Your task to perform on an android device: see tabs open on other devices in the chrome app Image 0: 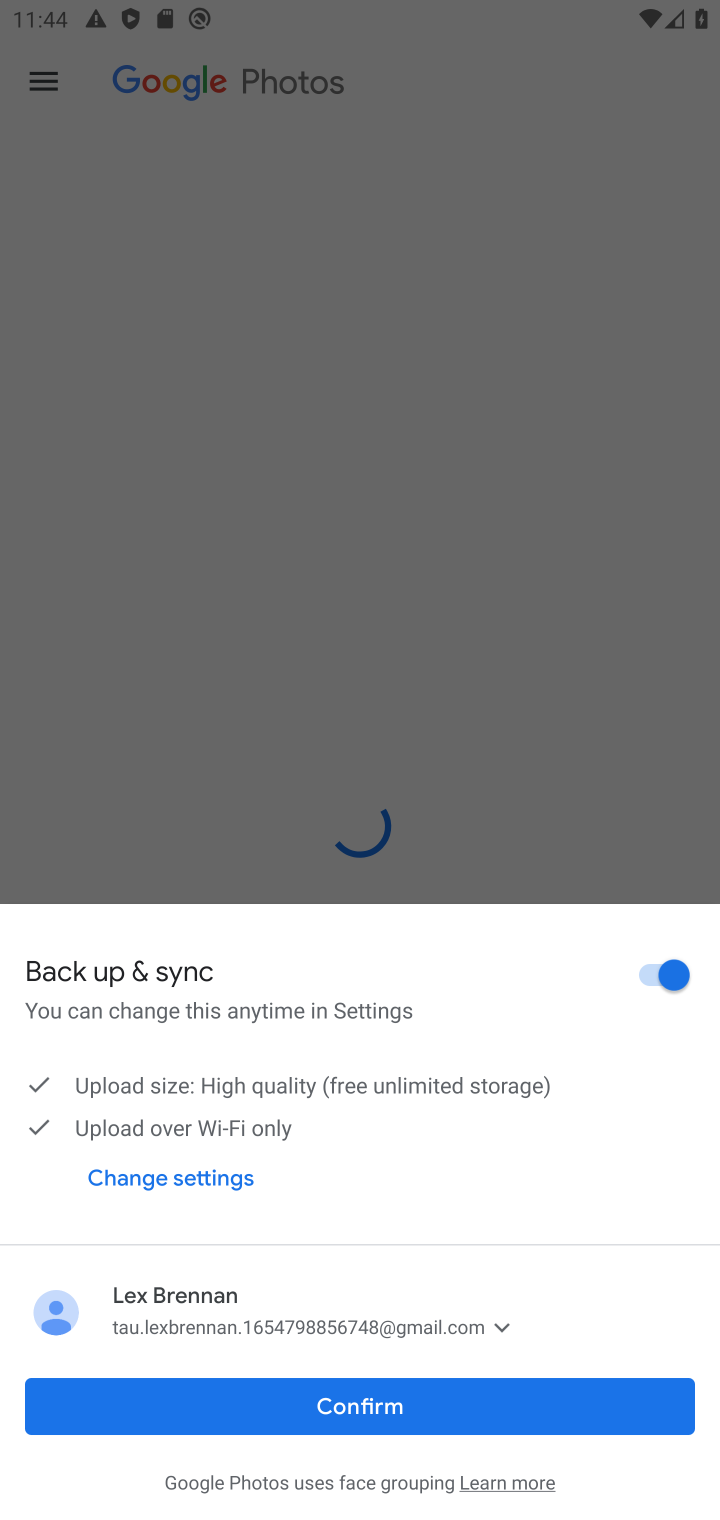
Step 0: press home button
Your task to perform on an android device: see tabs open on other devices in the chrome app Image 1: 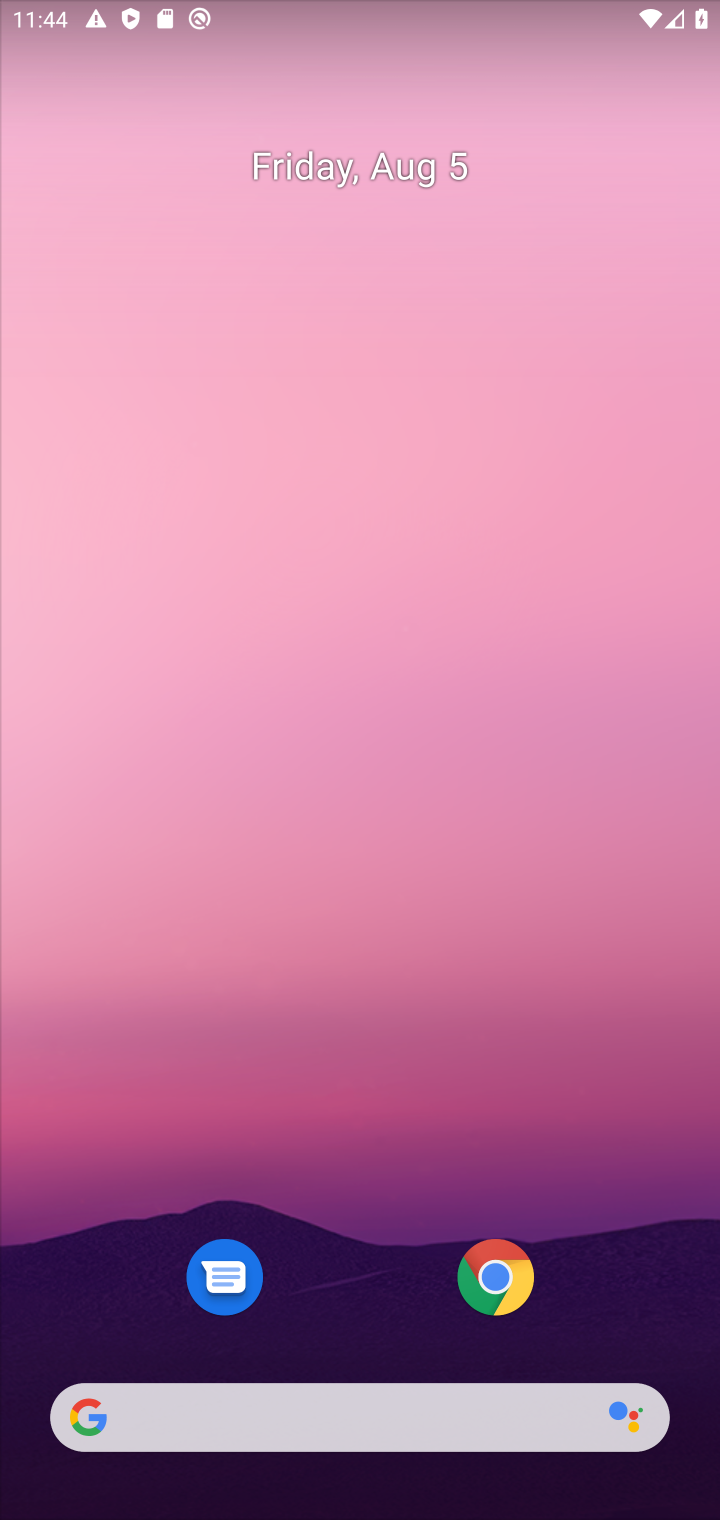
Step 1: click (489, 1267)
Your task to perform on an android device: see tabs open on other devices in the chrome app Image 2: 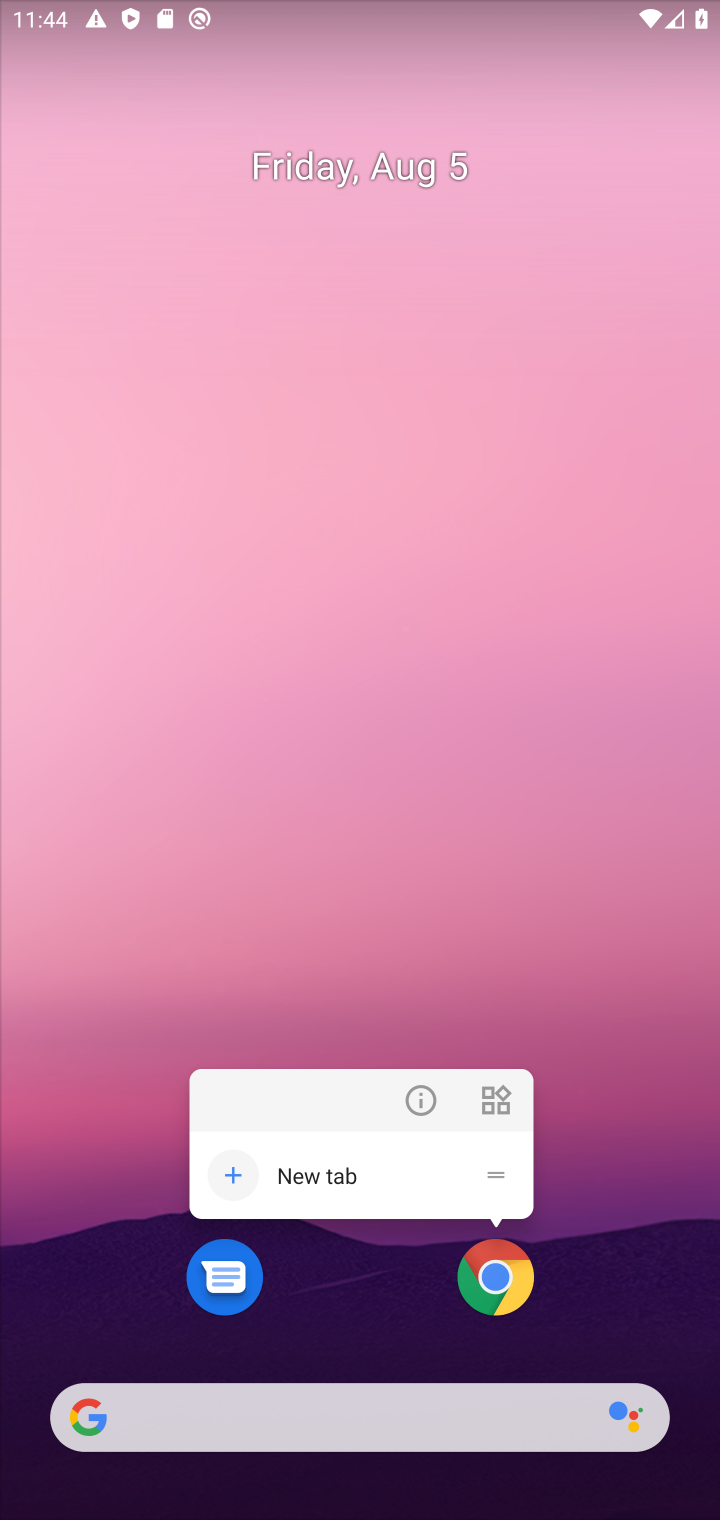
Step 2: click (489, 1279)
Your task to perform on an android device: see tabs open on other devices in the chrome app Image 3: 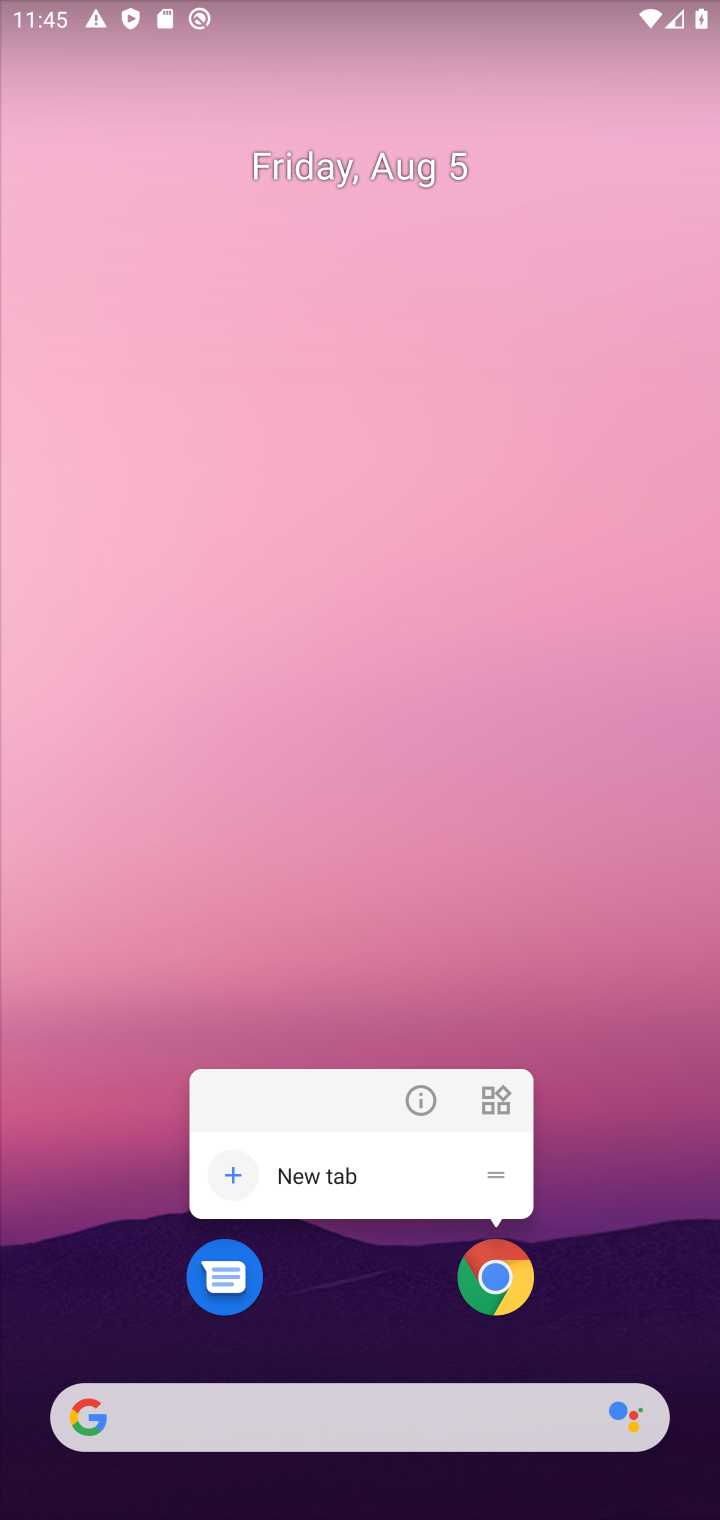
Step 3: click (489, 1279)
Your task to perform on an android device: see tabs open on other devices in the chrome app Image 4: 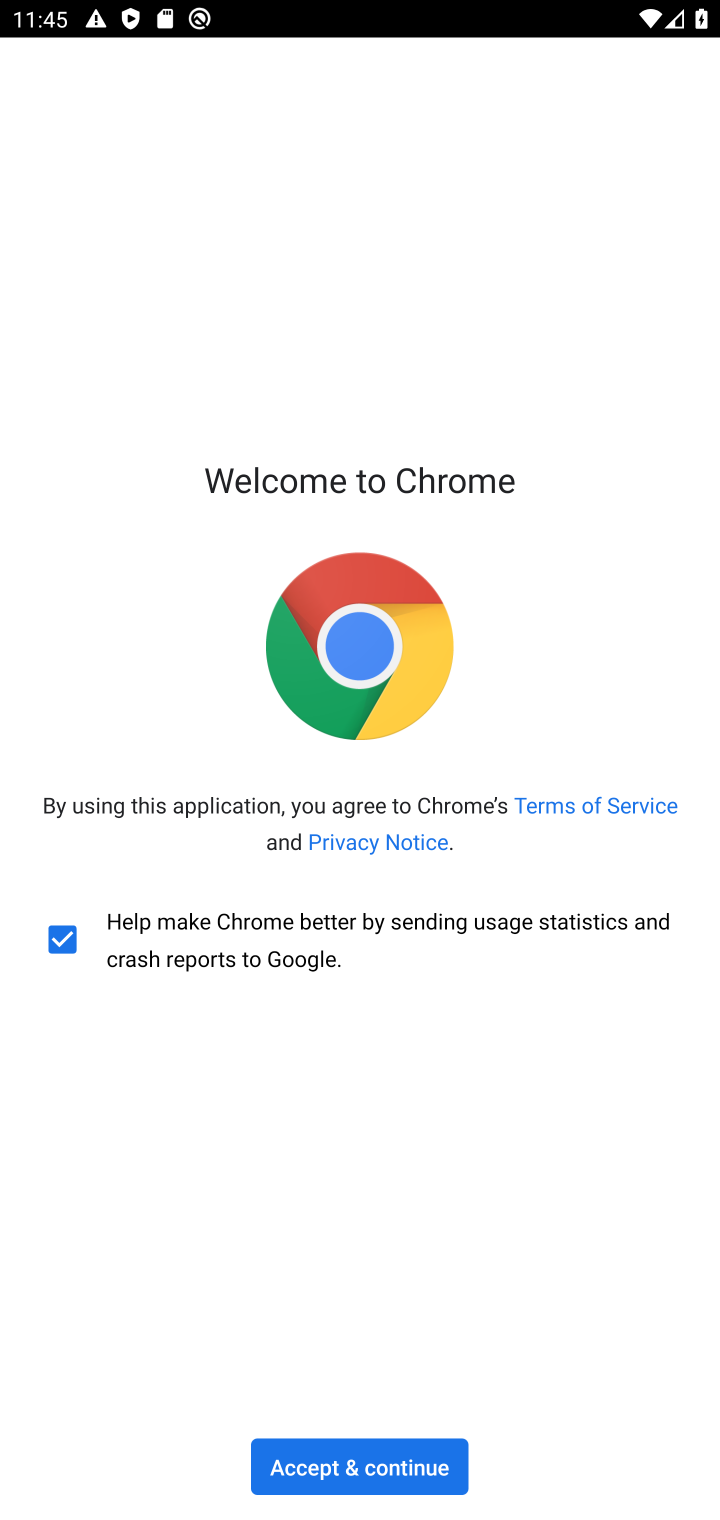
Step 4: click (303, 1474)
Your task to perform on an android device: see tabs open on other devices in the chrome app Image 5: 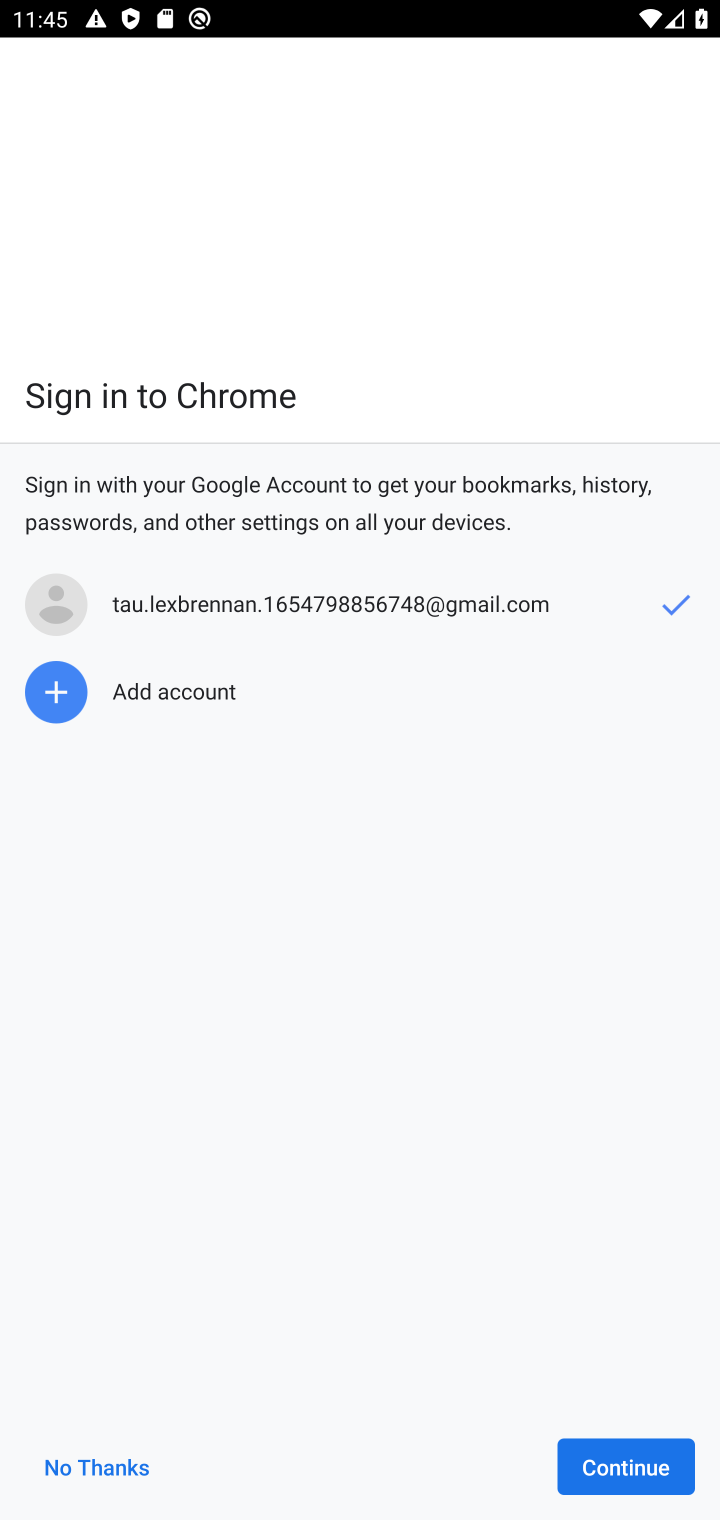
Step 5: click (601, 1470)
Your task to perform on an android device: see tabs open on other devices in the chrome app Image 6: 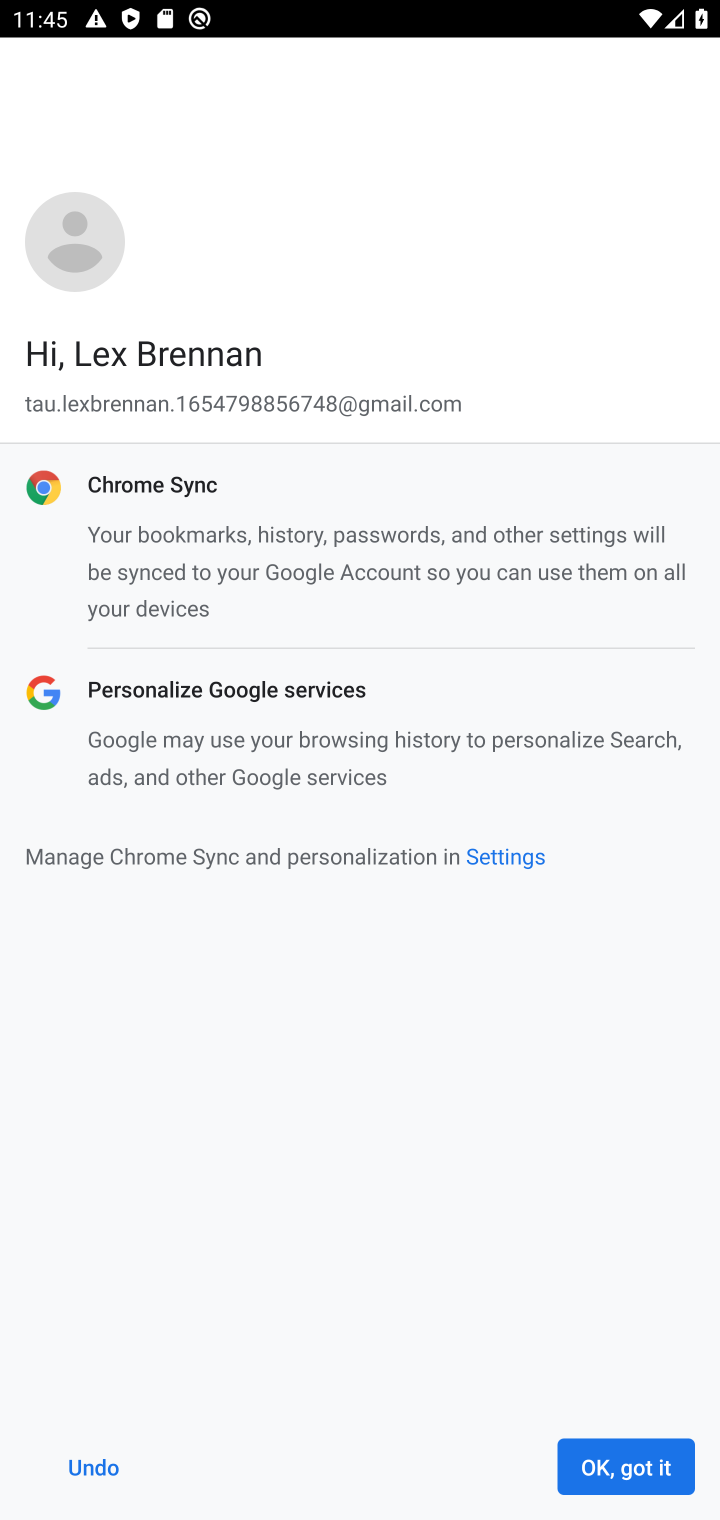
Step 6: click (618, 1468)
Your task to perform on an android device: see tabs open on other devices in the chrome app Image 7: 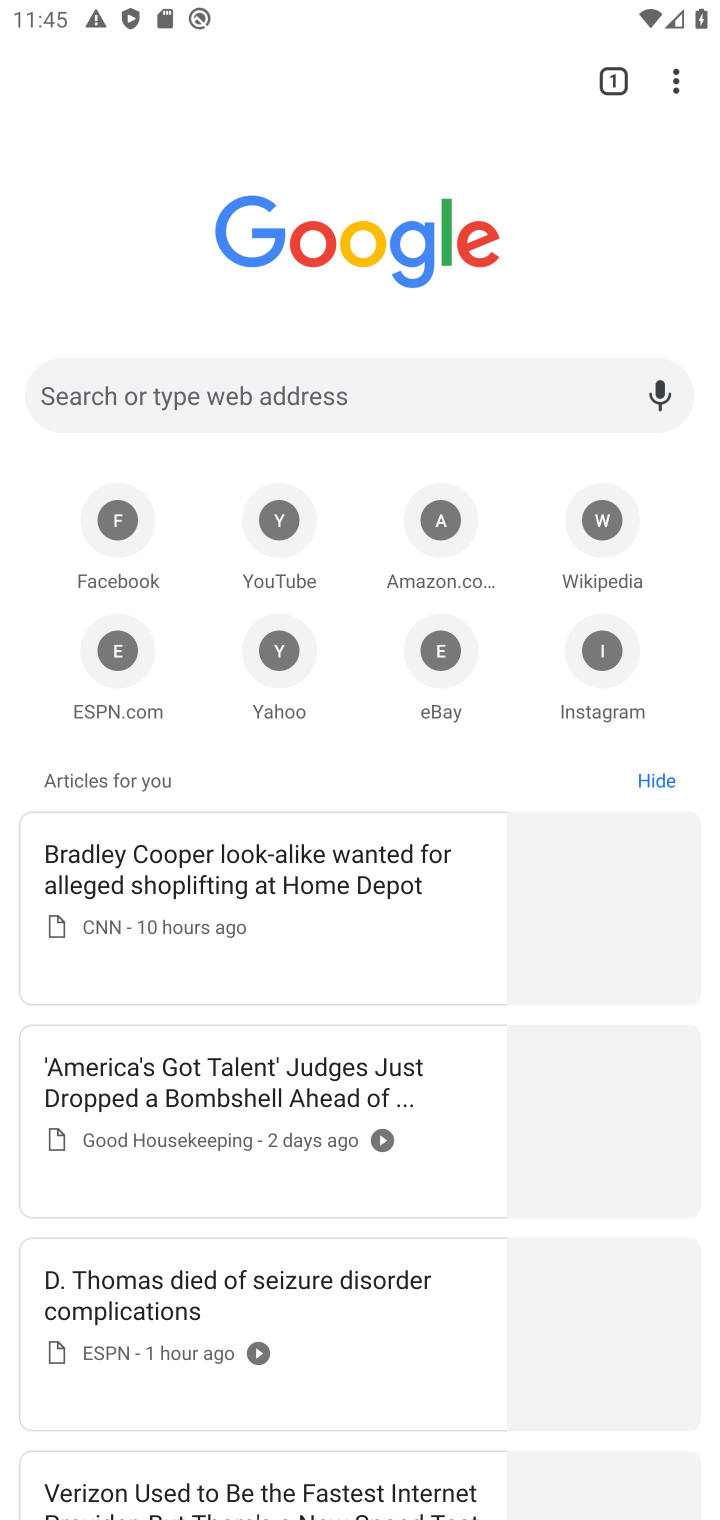
Step 7: task complete